Your task to perform on an android device: Play the last video I watched on Youtube Image 0: 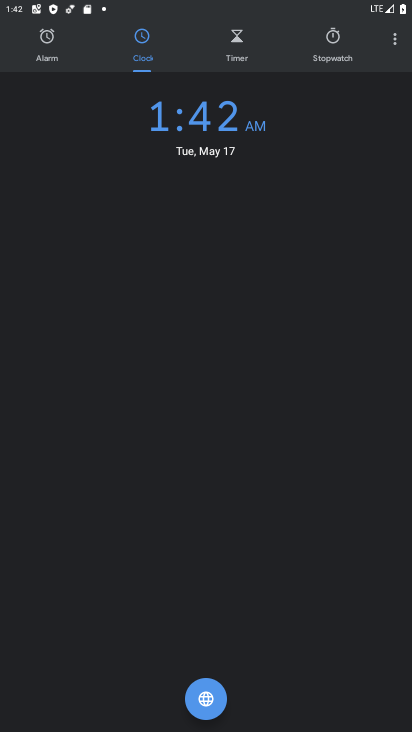
Step 0: press home button
Your task to perform on an android device: Play the last video I watched on Youtube Image 1: 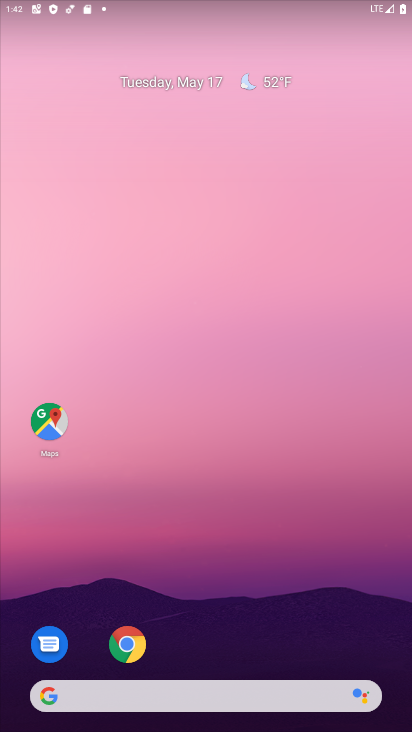
Step 1: drag from (201, 691) to (226, 214)
Your task to perform on an android device: Play the last video I watched on Youtube Image 2: 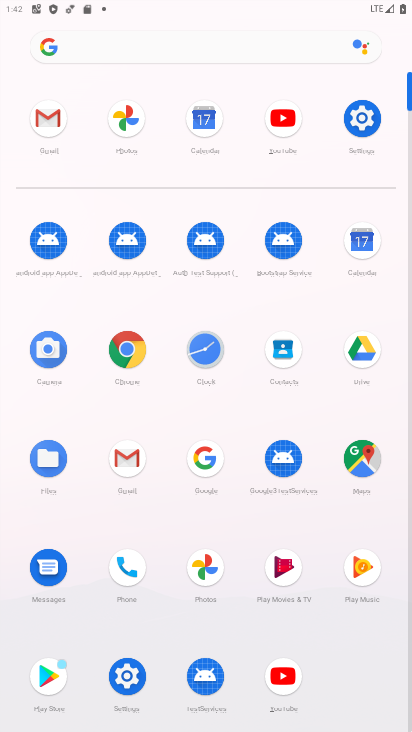
Step 2: click (286, 110)
Your task to perform on an android device: Play the last video I watched on Youtube Image 3: 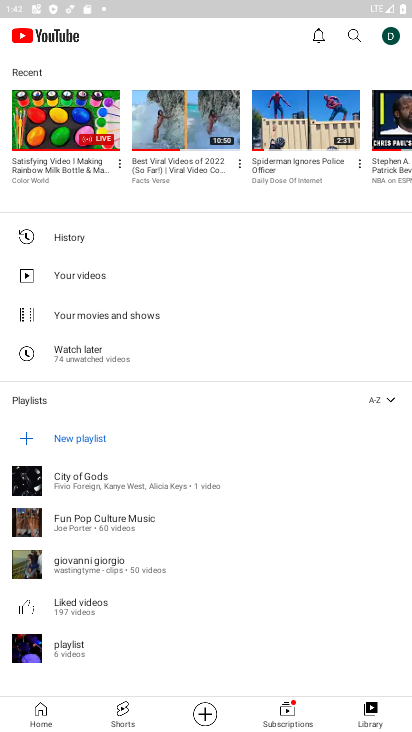
Step 3: click (63, 245)
Your task to perform on an android device: Play the last video I watched on Youtube Image 4: 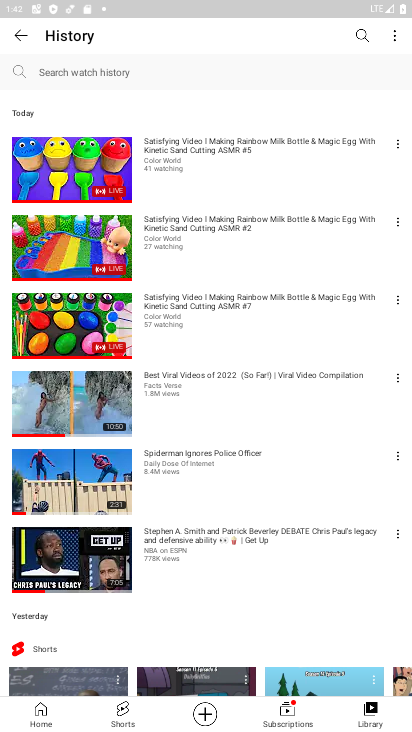
Step 4: drag from (172, 159) to (186, 589)
Your task to perform on an android device: Play the last video I watched on Youtube Image 5: 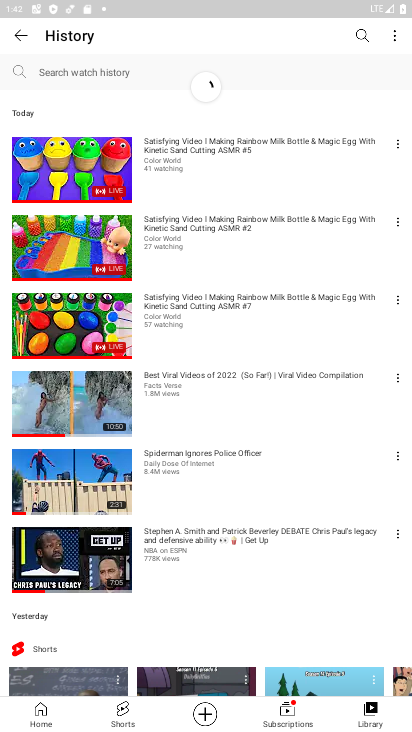
Step 5: click (99, 144)
Your task to perform on an android device: Play the last video I watched on Youtube Image 6: 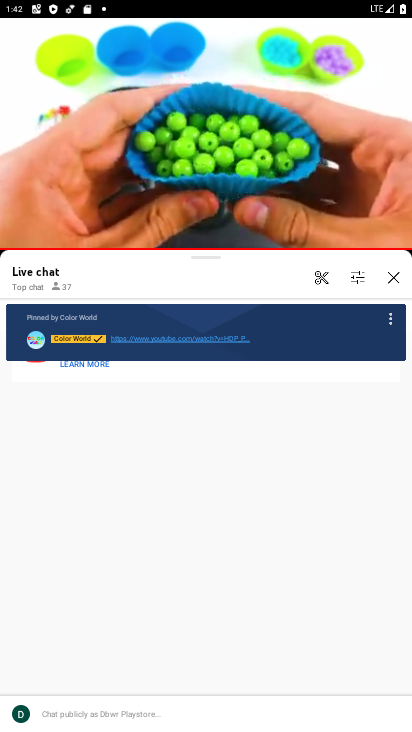
Step 6: task complete